Your task to perform on an android device: set the timer Image 0: 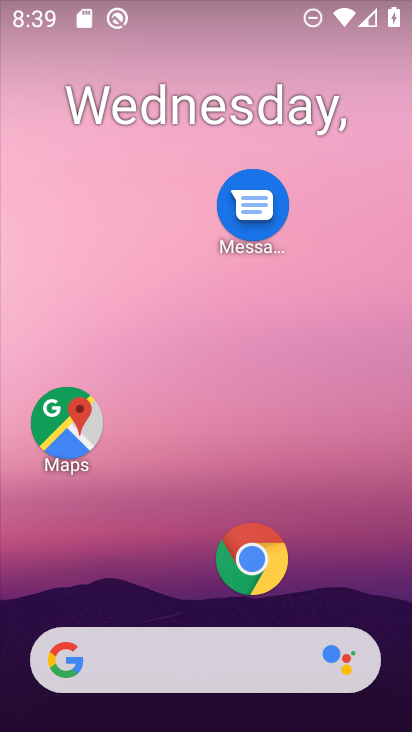
Step 0: drag from (188, 620) to (320, 6)
Your task to perform on an android device: set the timer Image 1: 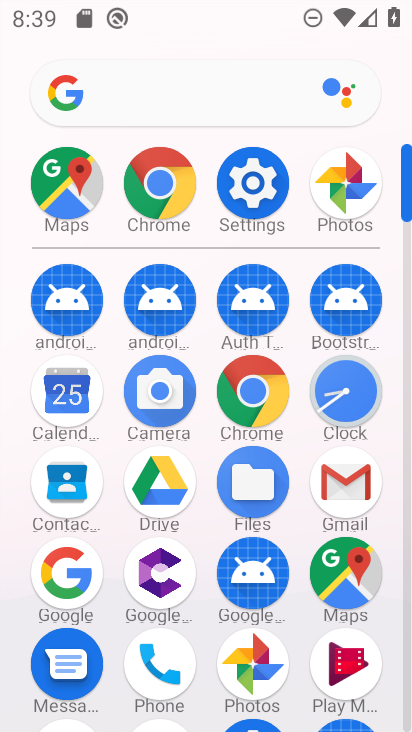
Step 1: click (343, 386)
Your task to perform on an android device: set the timer Image 2: 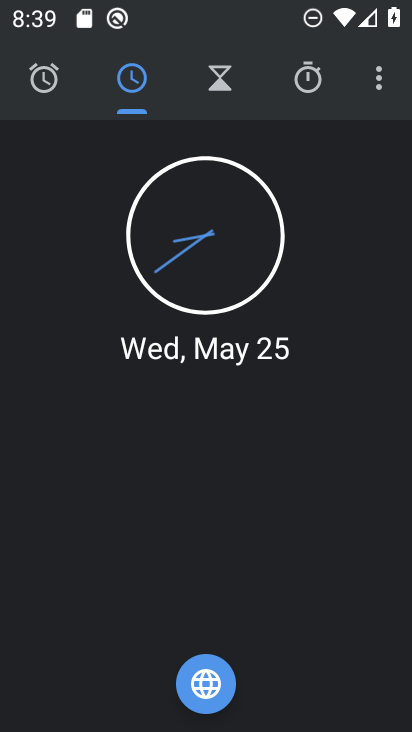
Step 2: click (218, 97)
Your task to perform on an android device: set the timer Image 3: 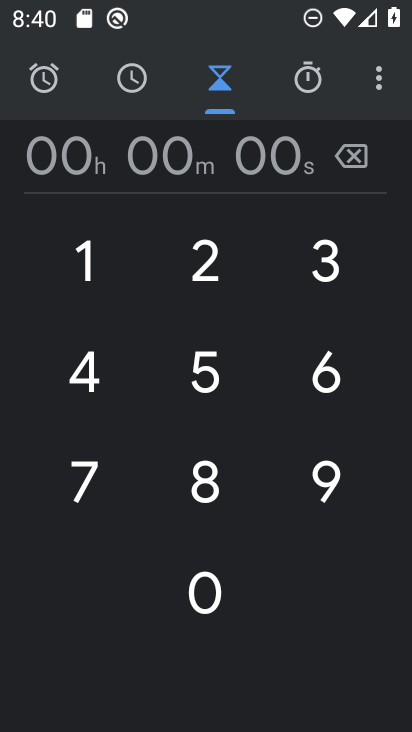
Step 3: click (209, 287)
Your task to perform on an android device: set the timer Image 4: 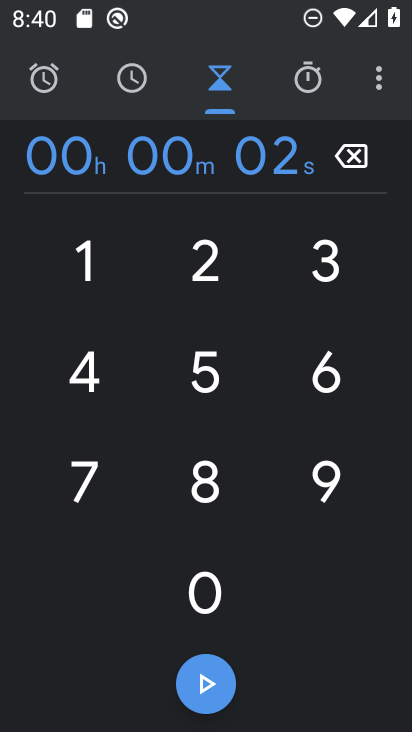
Step 4: click (203, 677)
Your task to perform on an android device: set the timer Image 5: 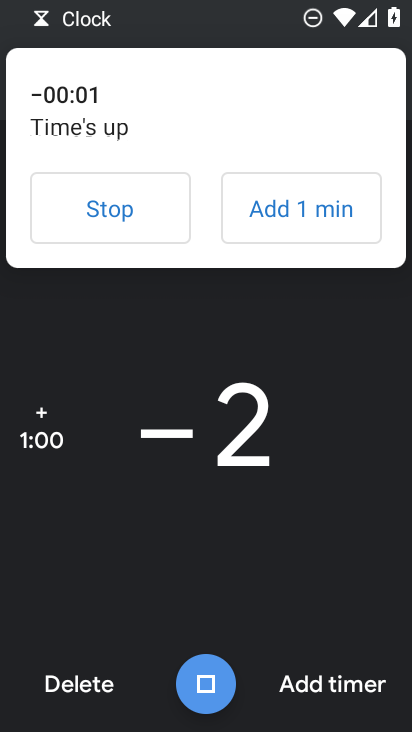
Step 5: task complete